Your task to perform on an android device: What's the weather today? Image 0: 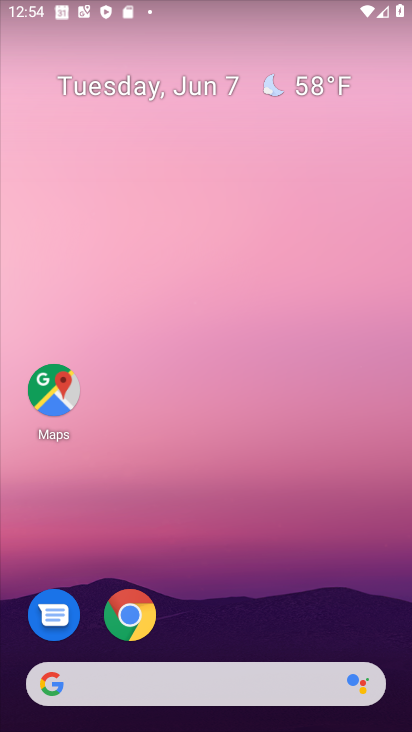
Step 0: drag from (294, 617) to (291, 75)
Your task to perform on an android device: What's the weather today? Image 1: 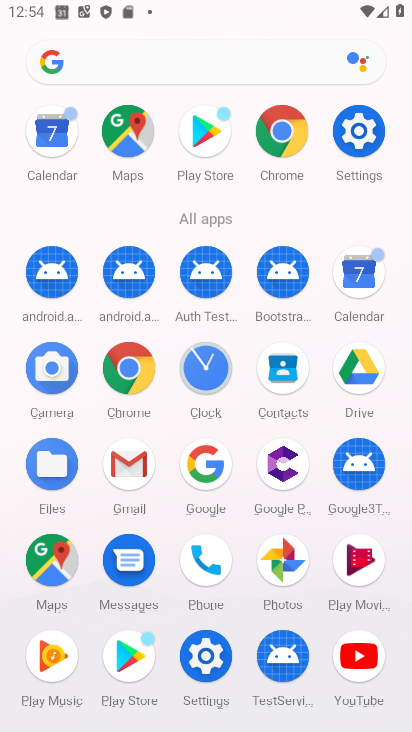
Step 1: click (203, 465)
Your task to perform on an android device: What's the weather today? Image 2: 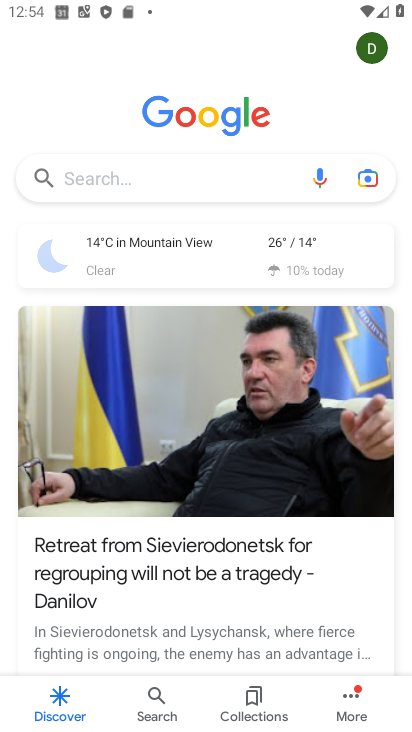
Step 2: click (242, 253)
Your task to perform on an android device: What's the weather today? Image 3: 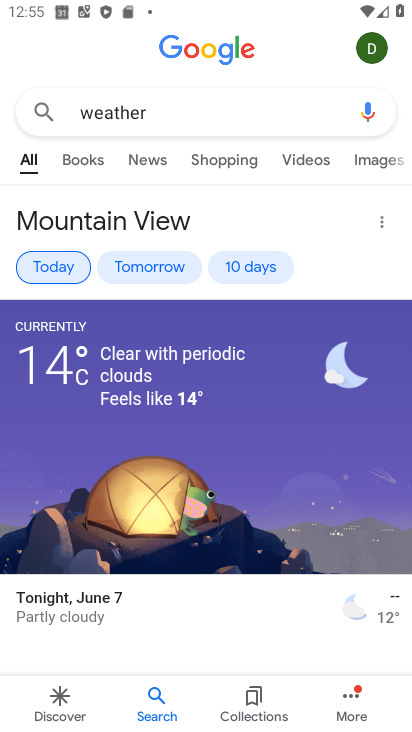
Step 3: task complete